Your task to perform on an android device: find photos in the google photos app Image 0: 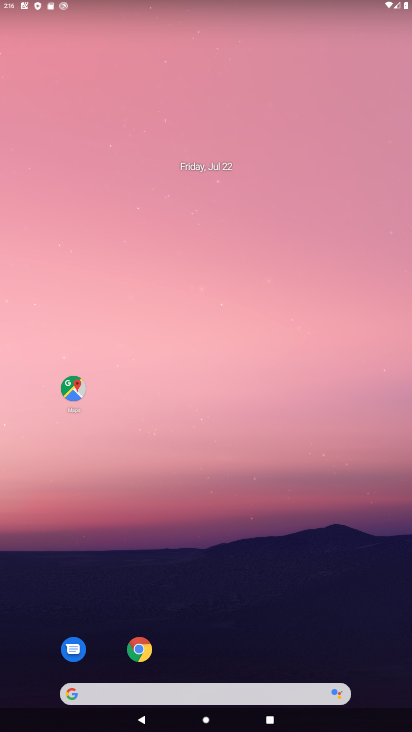
Step 0: drag from (192, 624) to (27, 162)
Your task to perform on an android device: find photos in the google photos app Image 1: 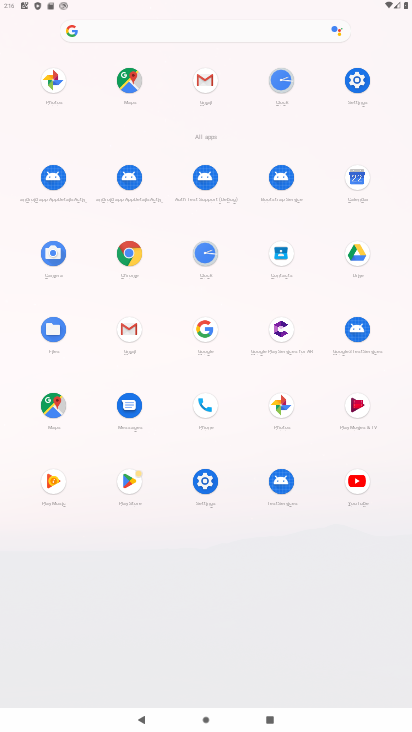
Step 1: click (277, 404)
Your task to perform on an android device: find photos in the google photos app Image 2: 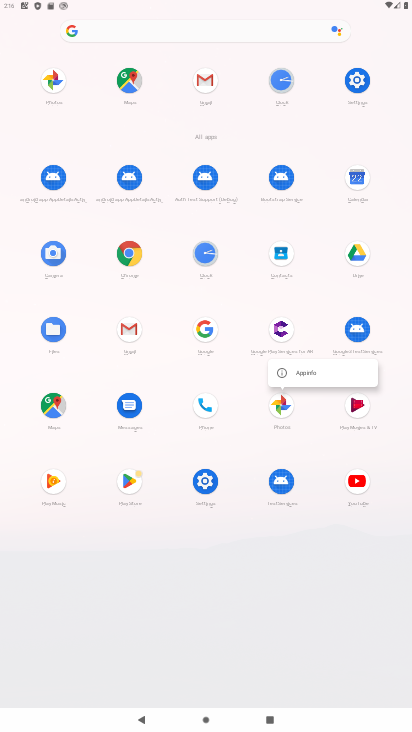
Step 2: click (303, 368)
Your task to perform on an android device: find photos in the google photos app Image 3: 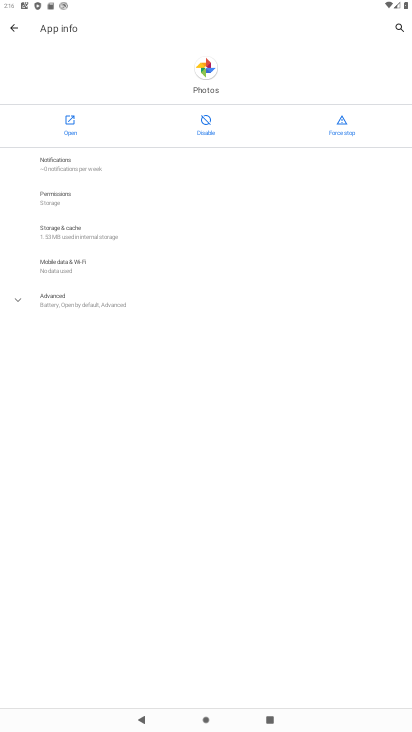
Step 3: click (62, 116)
Your task to perform on an android device: find photos in the google photos app Image 4: 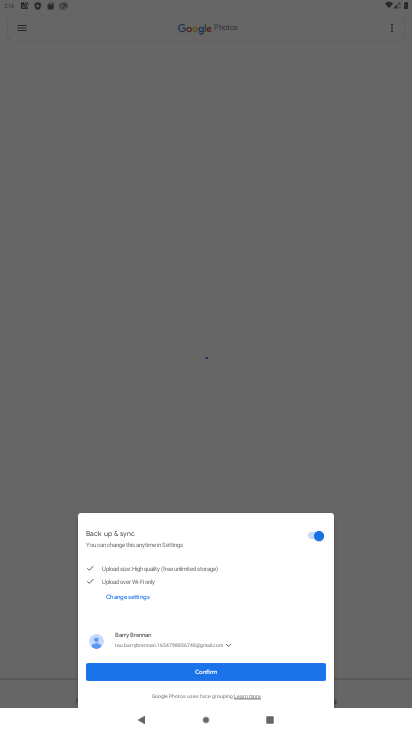
Step 4: click (191, 674)
Your task to perform on an android device: find photos in the google photos app Image 5: 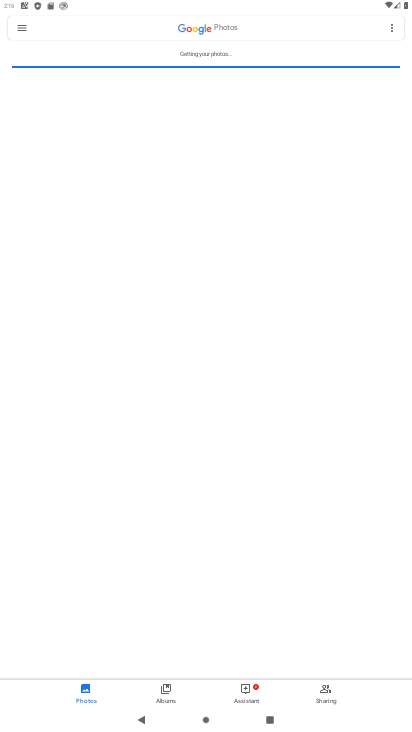
Step 5: drag from (233, 529) to (262, 343)
Your task to perform on an android device: find photos in the google photos app Image 6: 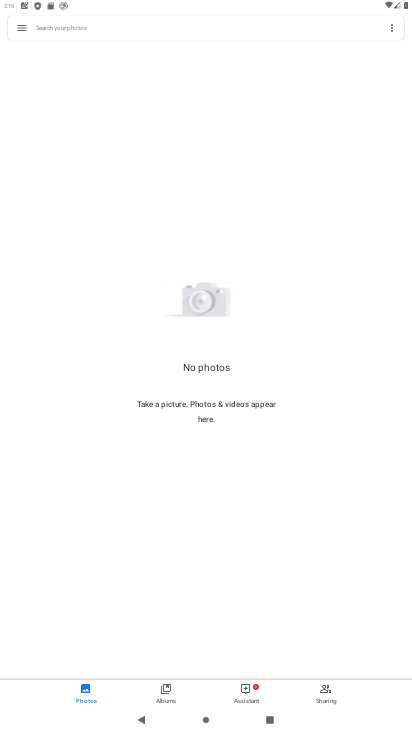
Step 6: click (245, 270)
Your task to perform on an android device: find photos in the google photos app Image 7: 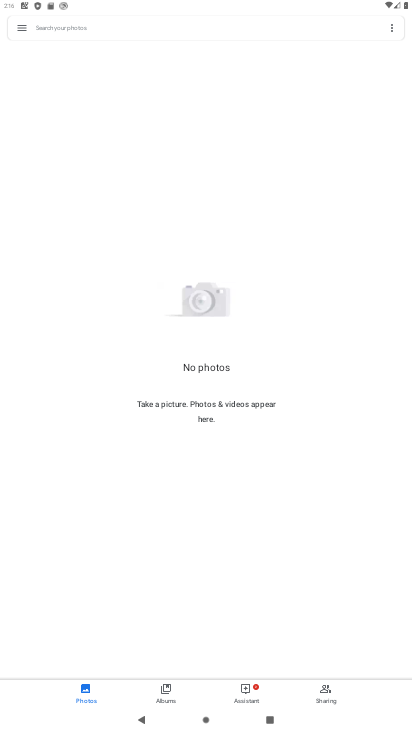
Step 7: task complete